Your task to perform on an android device: check storage Image 0: 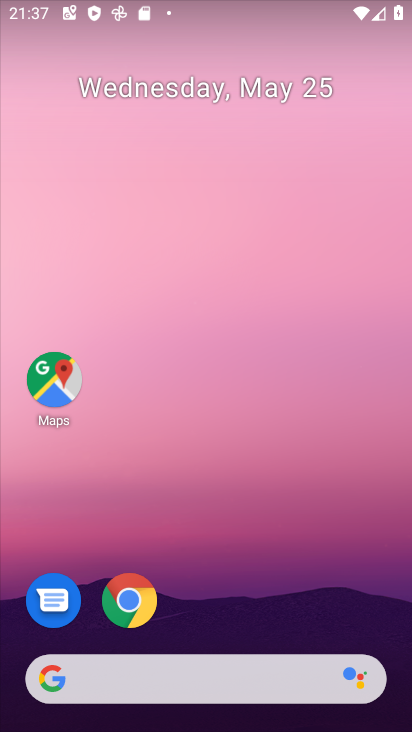
Step 0: drag from (326, 614) to (306, 125)
Your task to perform on an android device: check storage Image 1: 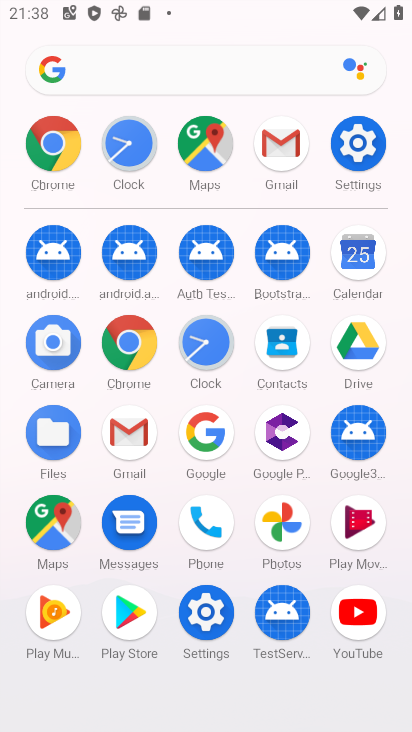
Step 1: click (201, 613)
Your task to perform on an android device: check storage Image 2: 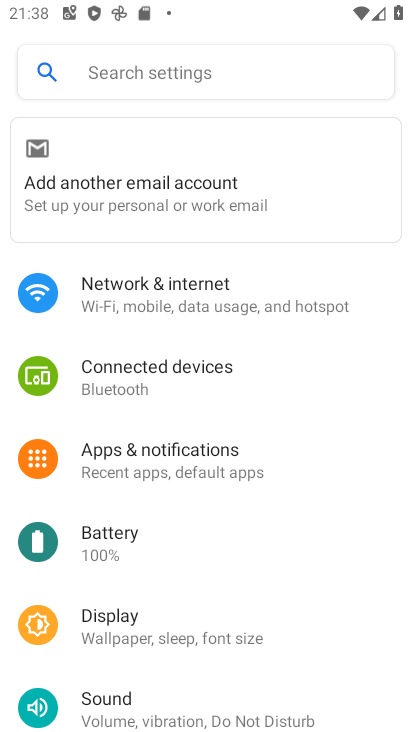
Step 2: drag from (197, 658) to (182, 291)
Your task to perform on an android device: check storage Image 3: 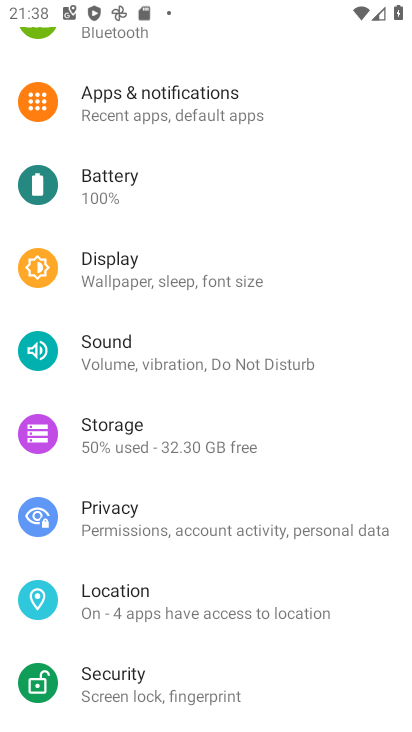
Step 3: click (130, 435)
Your task to perform on an android device: check storage Image 4: 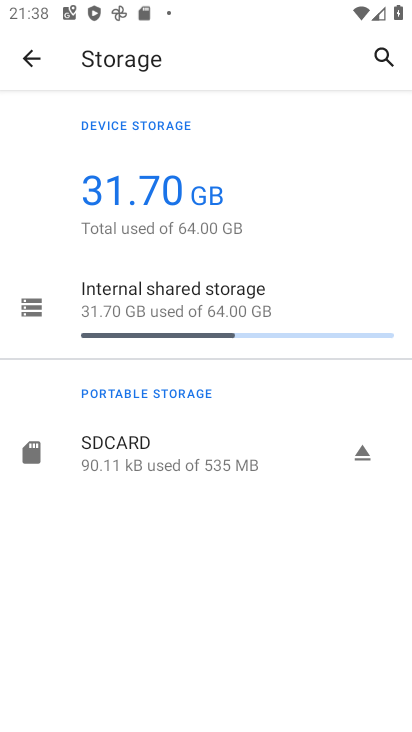
Step 4: click (17, 302)
Your task to perform on an android device: check storage Image 5: 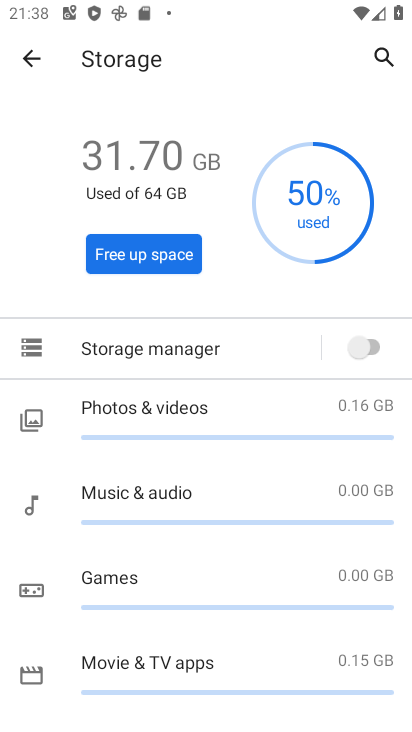
Step 5: click (24, 353)
Your task to perform on an android device: check storage Image 6: 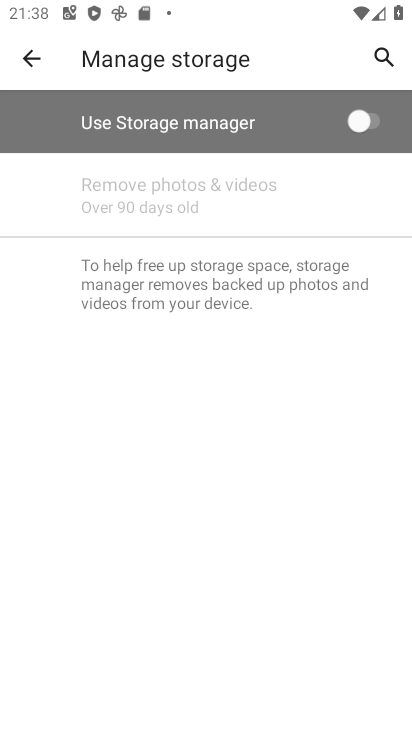
Step 6: task complete